Your task to perform on an android device: Go to settings Image 0: 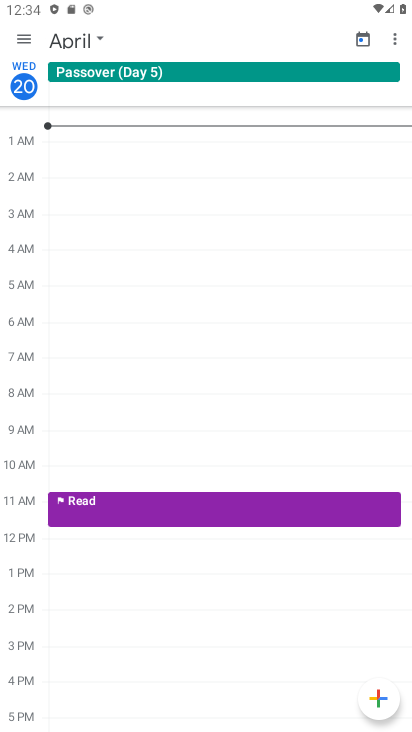
Step 0: press home button
Your task to perform on an android device: Go to settings Image 1: 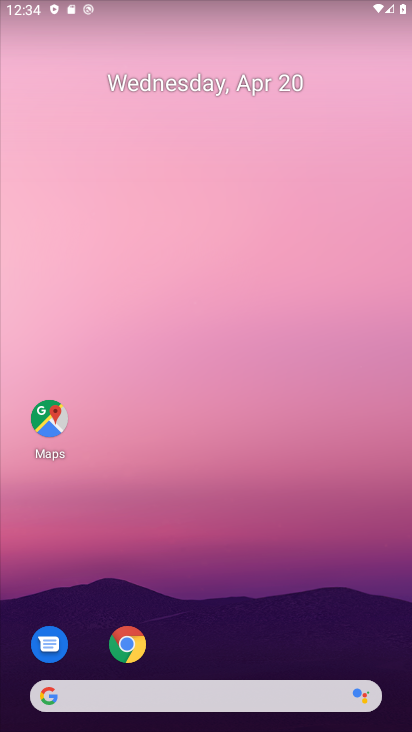
Step 1: drag from (260, 631) to (230, 2)
Your task to perform on an android device: Go to settings Image 2: 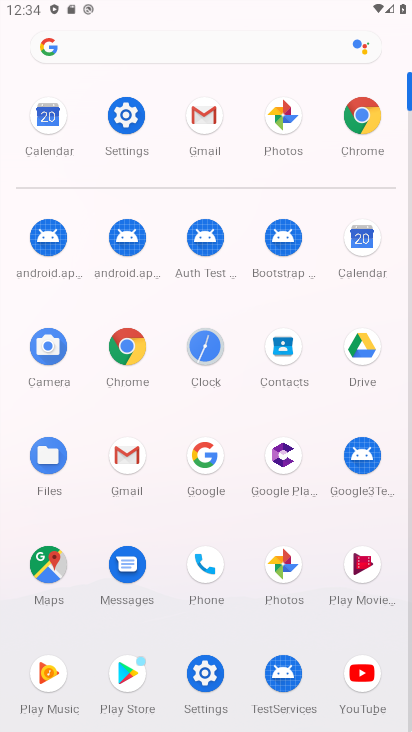
Step 2: click (126, 104)
Your task to perform on an android device: Go to settings Image 3: 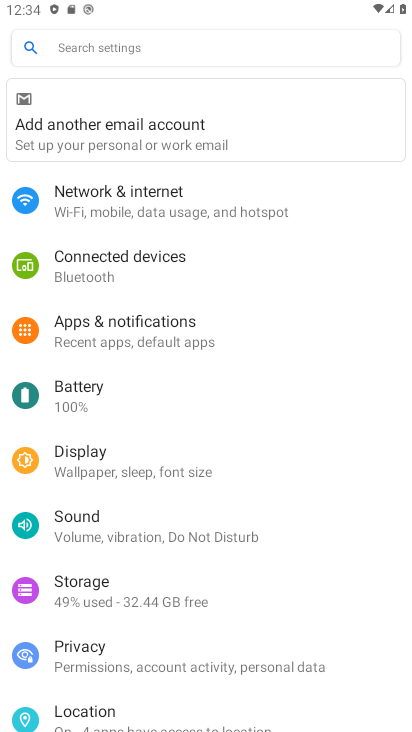
Step 3: task complete